Your task to perform on an android device: Open location settings Image 0: 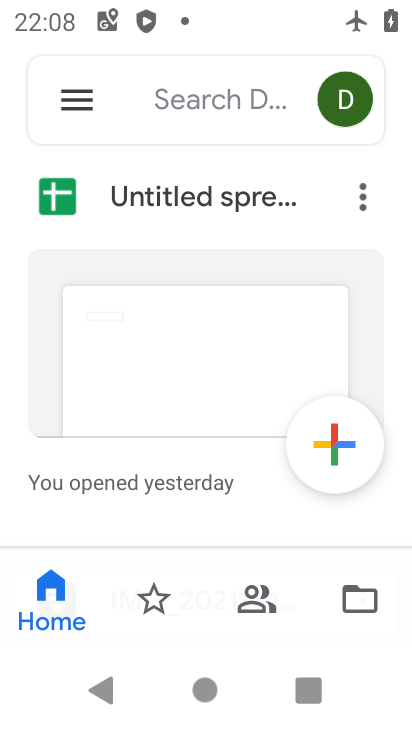
Step 0: press home button
Your task to perform on an android device: Open location settings Image 1: 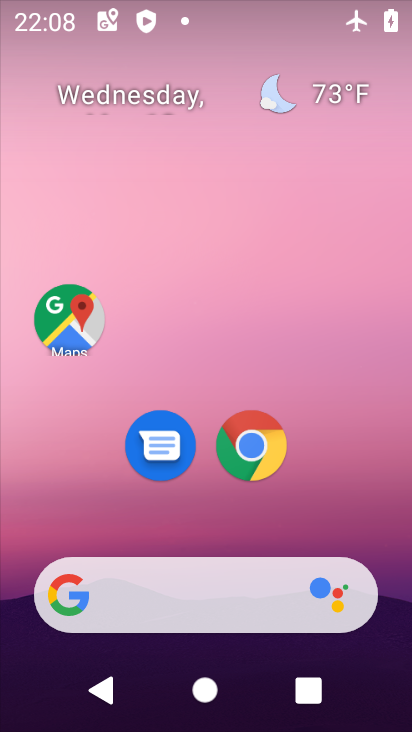
Step 1: drag from (320, 437) to (314, 241)
Your task to perform on an android device: Open location settings Image 2: 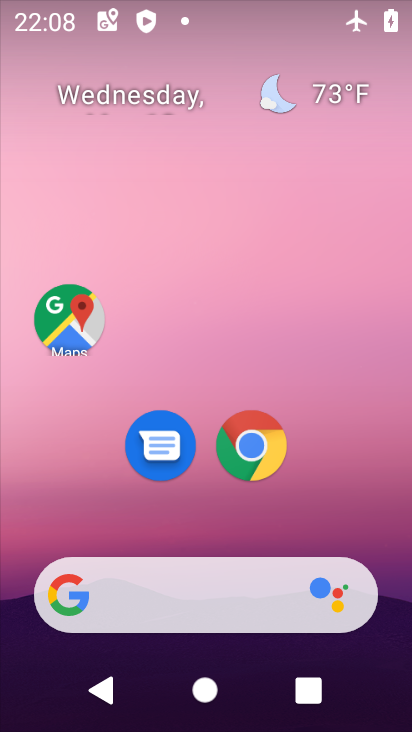
Step 2: drag from (291, 456) to (302, 186)
Your task to perform on an android device: Open location settings Image 3: 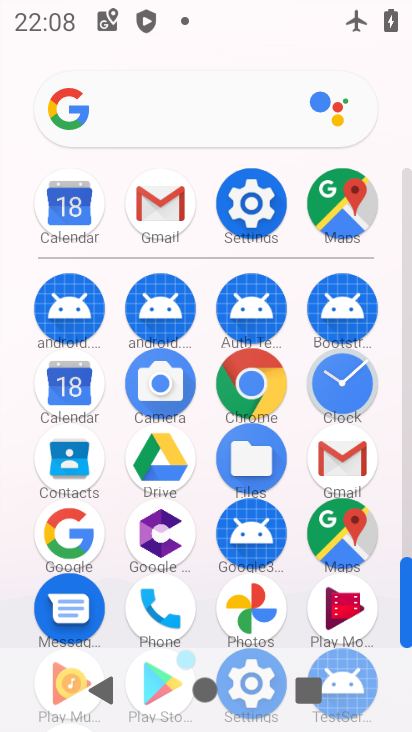
Step 3: click (246, 192)
Your task to perform on an android device: Open location settings Image 4: 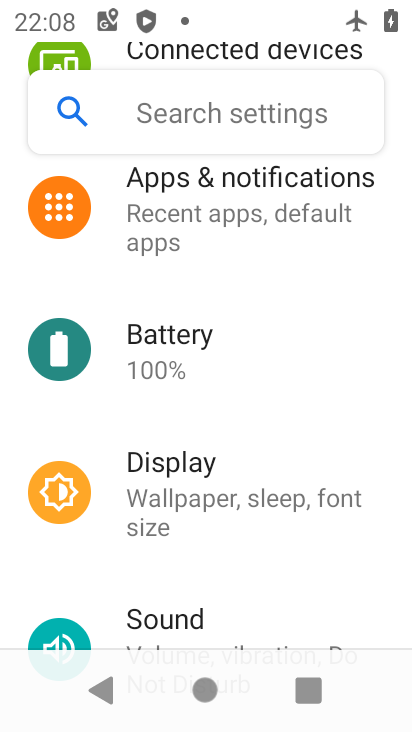
Step 4: drag from (209, 563) to (283, 140)
Your task to perform on an android device: Open location settings Image 5: 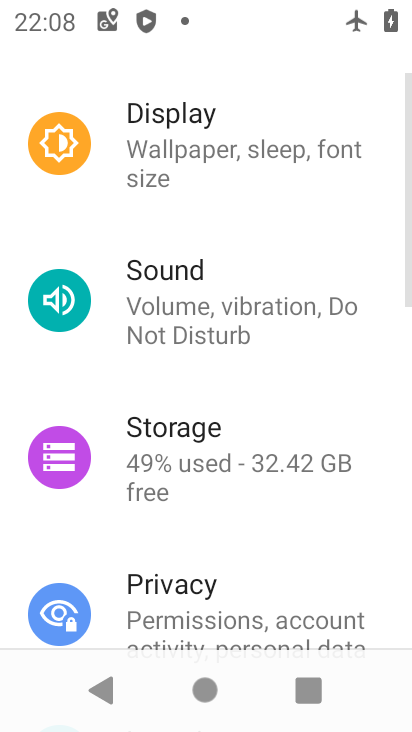
Step 5: drag from (234, 564) to (303, 188)
Your task to perform on an android device: Open location settings Image 6: 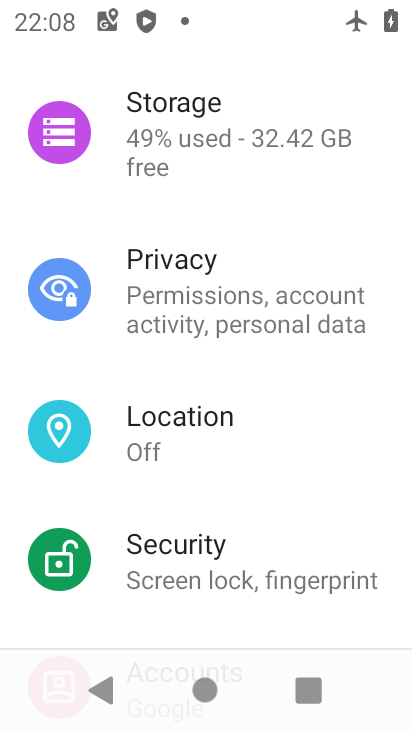
Step 6: click (169, 450)
Your task to perform on an android device: Open location settings Image 7: 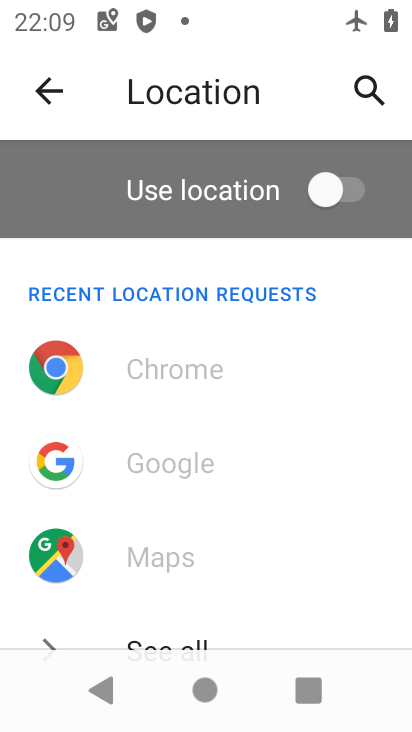
Step 7: task complete